Your task to perform on an android device: Open the map Image 0: 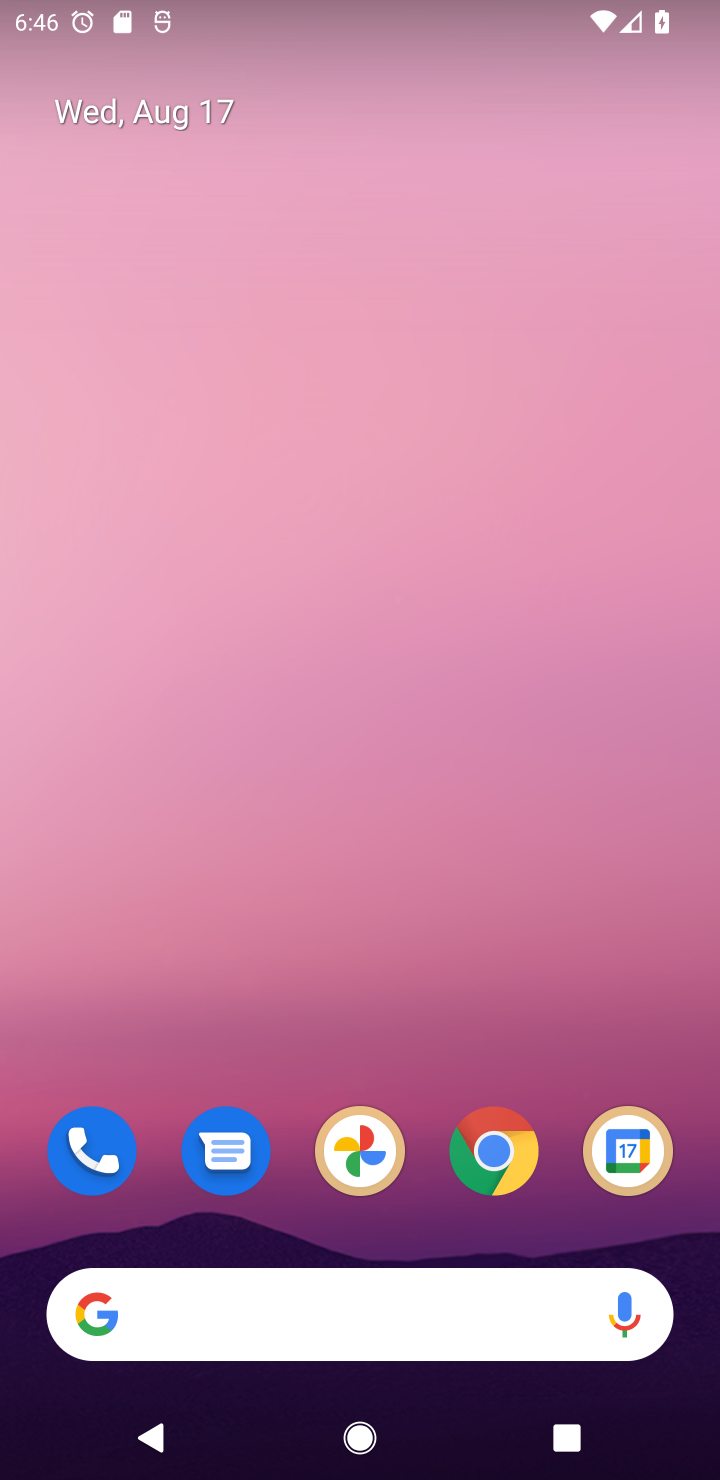
Step 0: drag from (427, 1232) to (424, 167)
Your task to perform on an android device: Open the map Image 1: 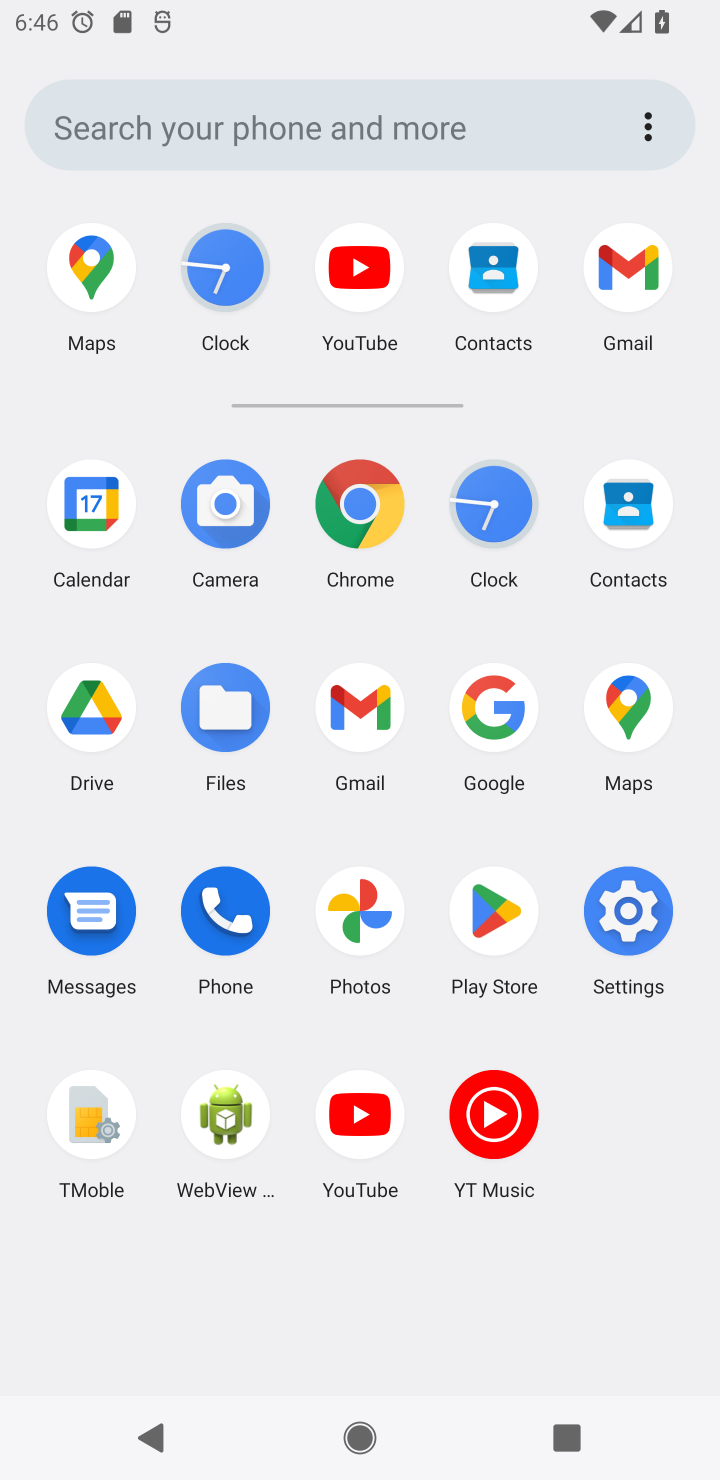
Step 1: click (113, 308)
Your task to perform on an android device: Open the map Image 2: 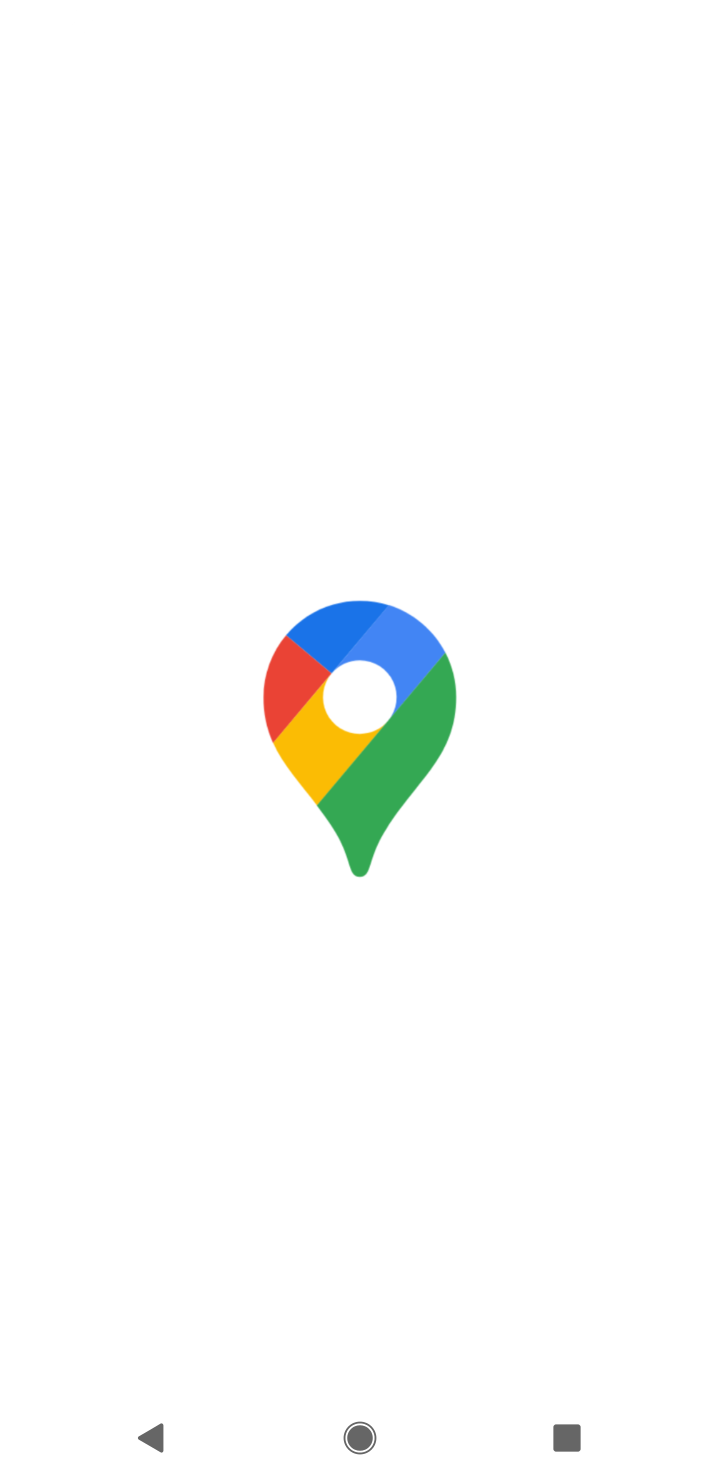
Step 2: task complete